Your task to perform on an android device: Open Google Chrome and click the shortcut for Amazon.com Image 0: 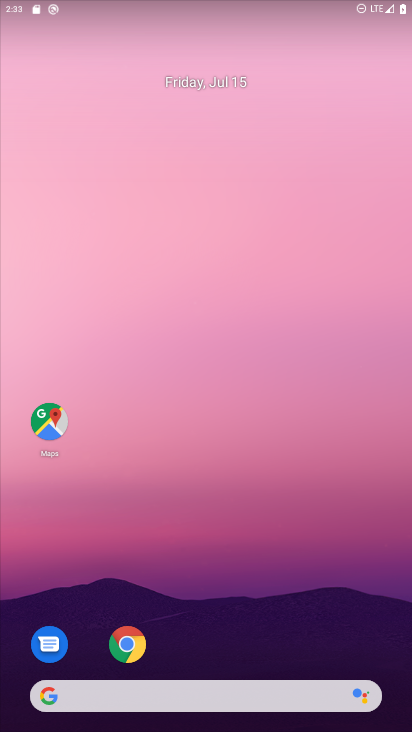
Step 0: drag from (50, 546) to (218, 97)
Your task to perform on an android device: Open Google Chrome and click the shortcut for Amazon.com Image 1: 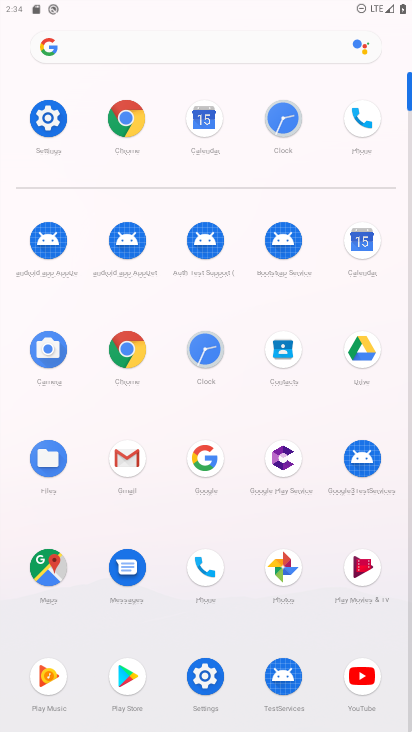
Step 1: click (116, 111)
Your task to perform on an android device: Open Google Chrome and click the shortcut for Amazon.com Image 2: 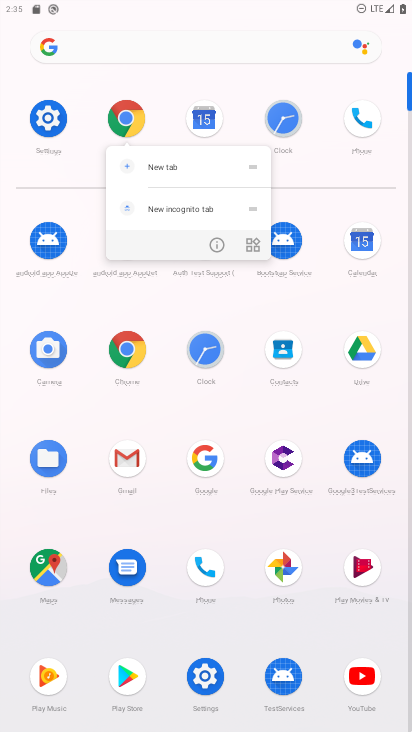
Step 2: click (129, 115)
Your task to perform on an android device: Open Google Chrome and click the shortcut for Amazon.com Image 3: 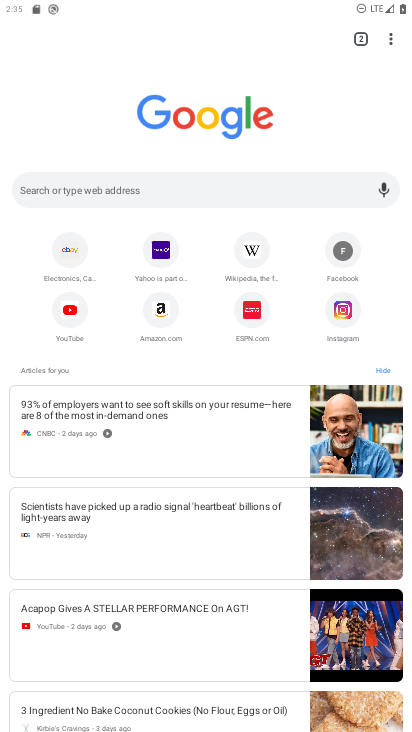
Step 3: click (150, 318)
Your task to perform on an android device: Open Google Chrome and click the shortcut for Amazon.com Image 4: 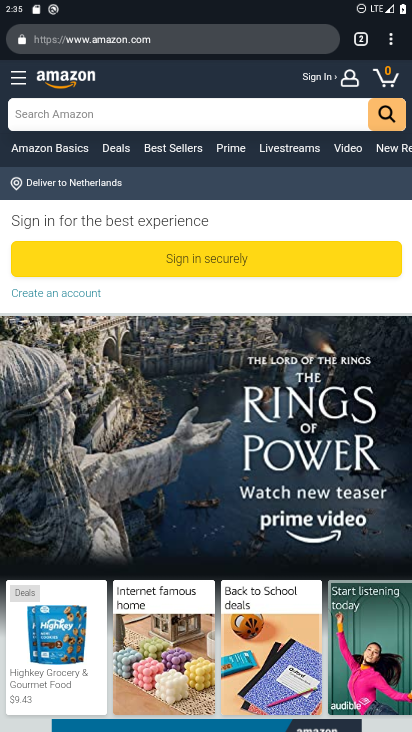
Step 4: task complete